Your task to perform on an android device: uninstall "Truecaller" Image 0: 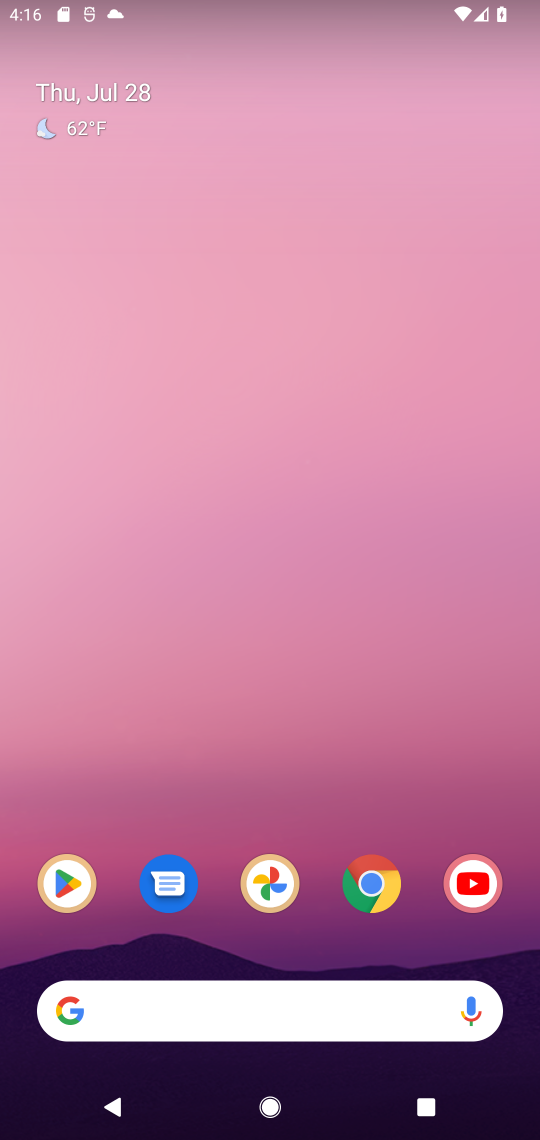
Step 0: drag from (277, 1005) to (190, 96)
Your task to perform on an android device: uninstall "Truecaller" Image 1: 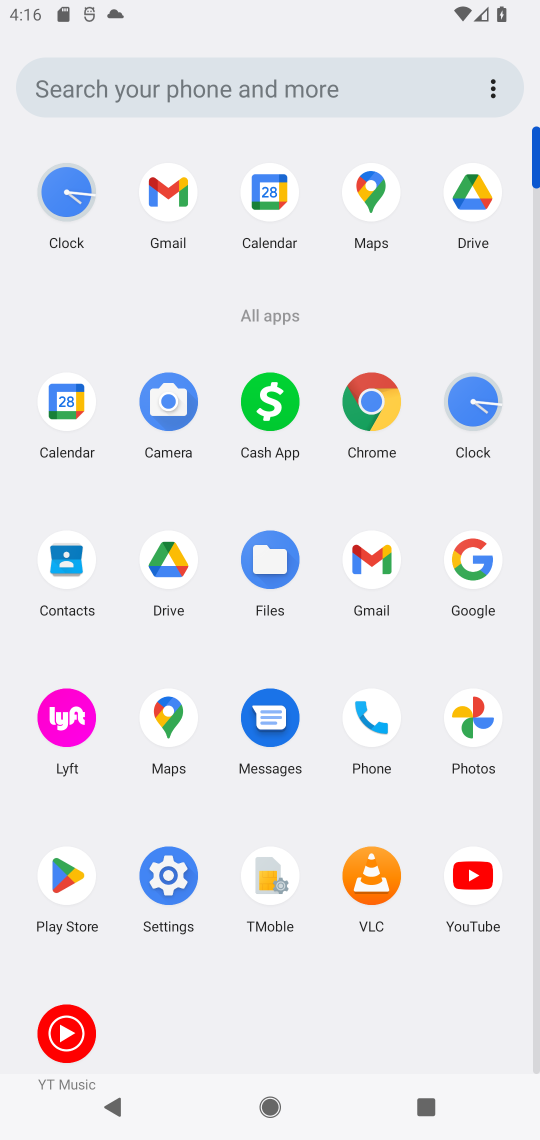
Step 1: click (71, 883)
Your task to perform on an android device: uninstall "Truecaller" Image 2: 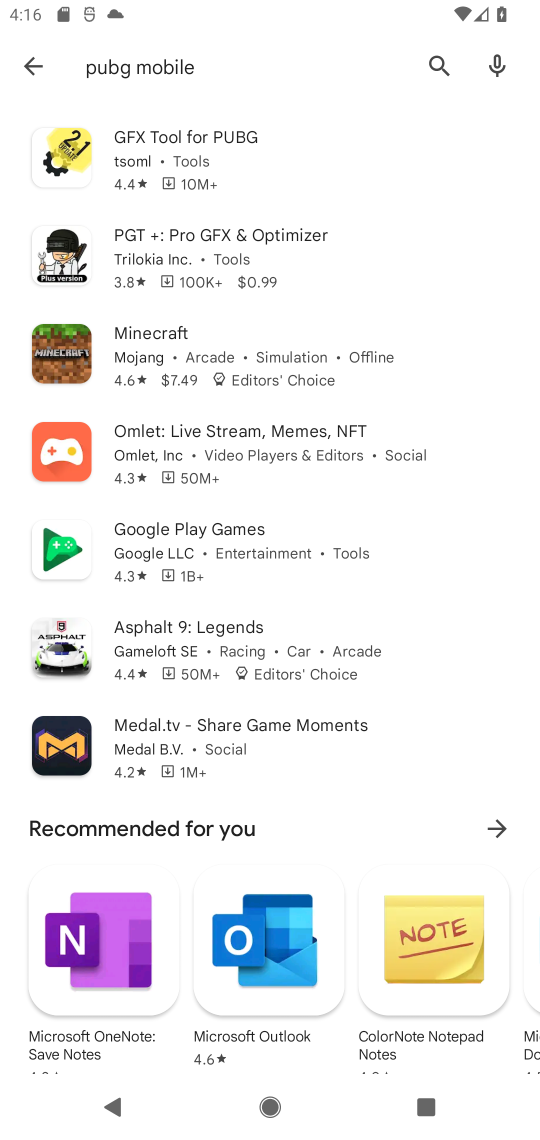
Step 2: click (37, 54)
Your task to perform on an android device: uninstall "Truecaller" Image 3: 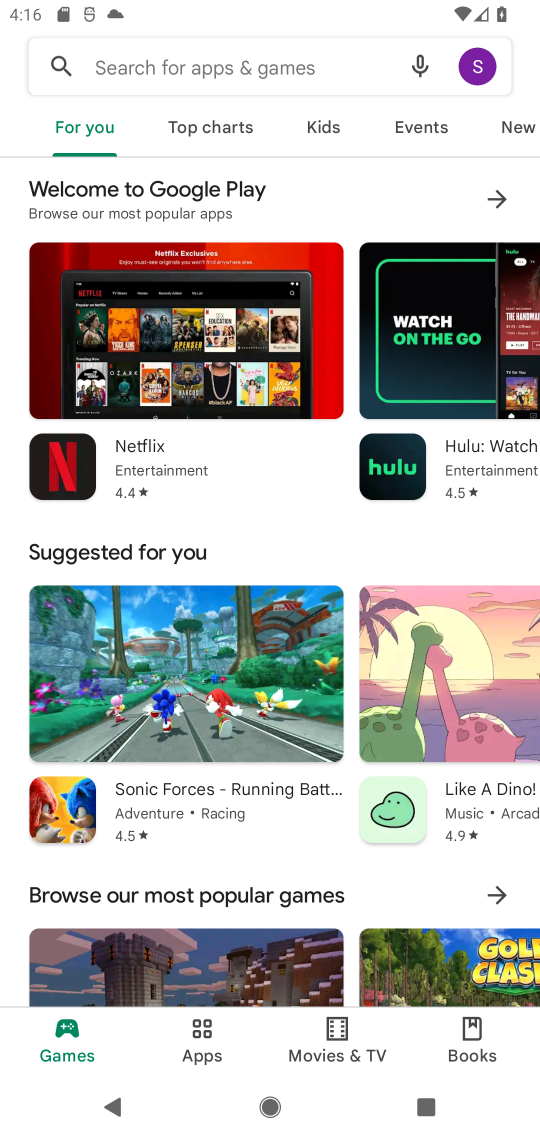
Step 3: click (195, 82)
Your task to perform on an android device: uninstall "Truecaller" Image 4: 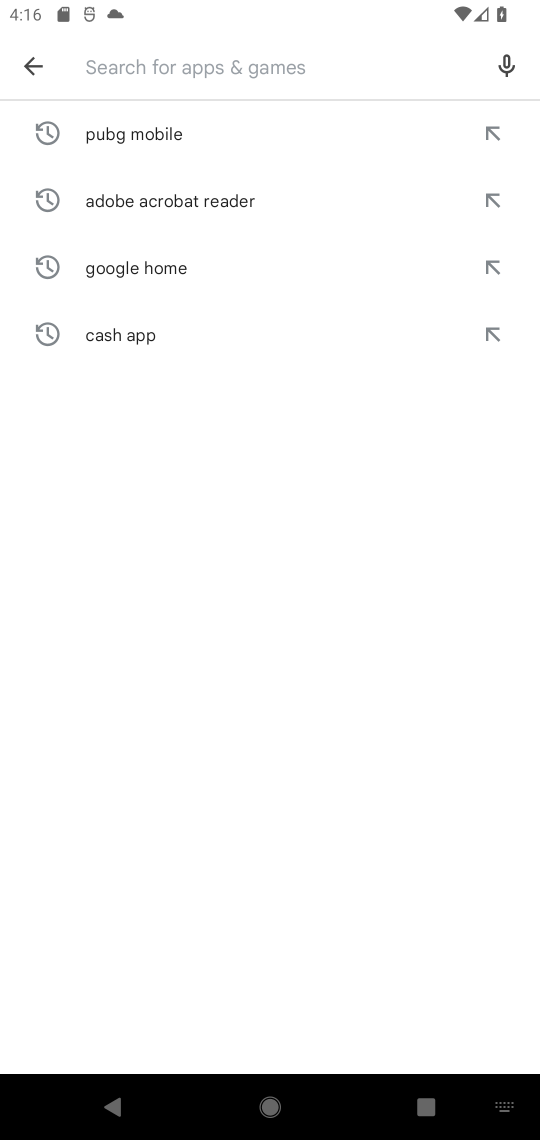
Step 4: click (106, 73)
Your task to perform on an android device: uninstall "Truecaller" Image 5: 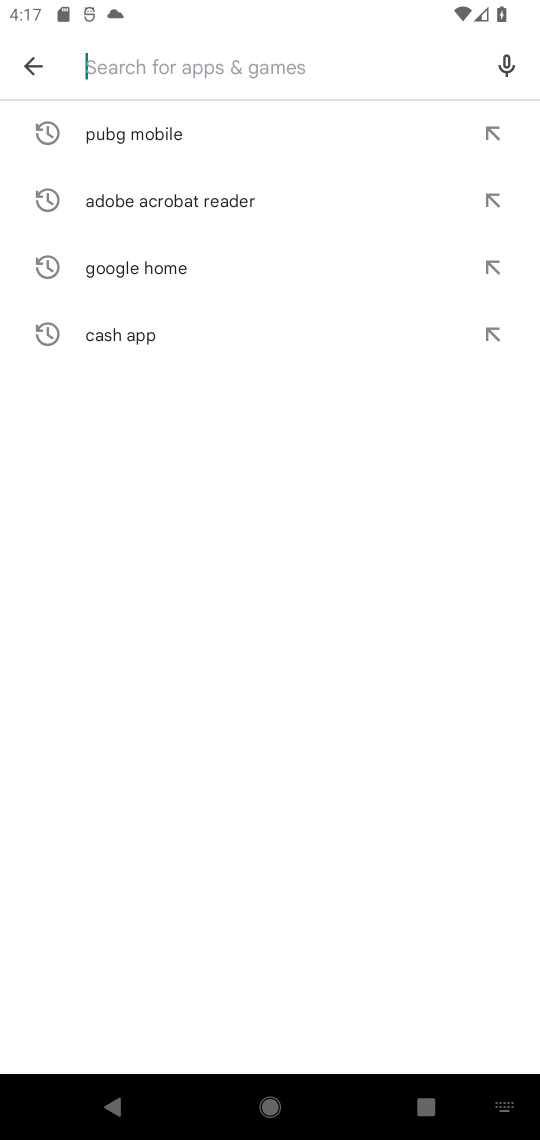
Step 5: type "Truecaller"
Your task to perform on an android device: uninstall "Truecaller" Image 6: 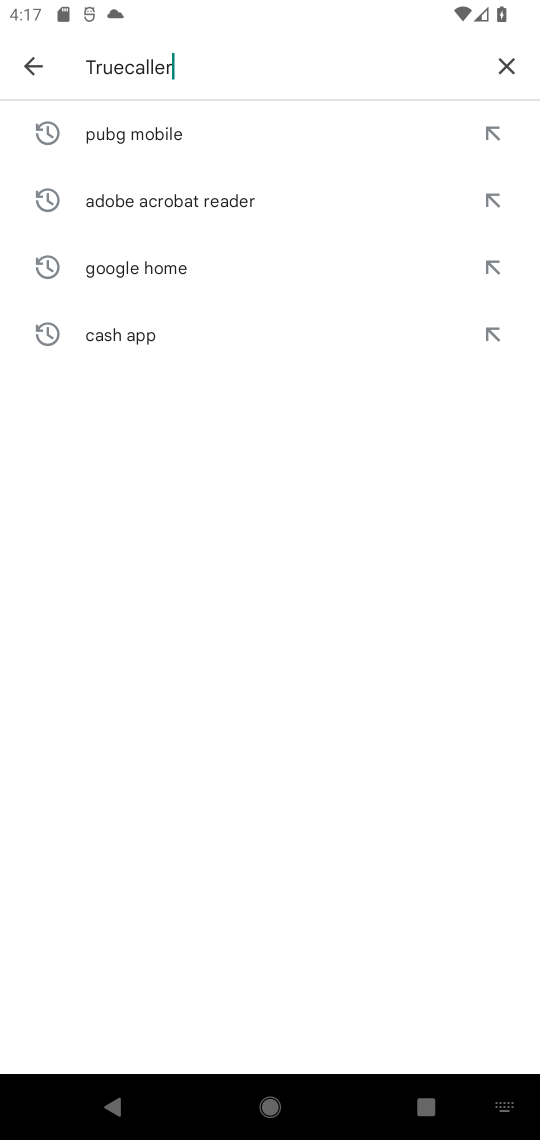
Step 6: type ""
Your task to perform on an android device: uninstall "Truecaller" Image 7: 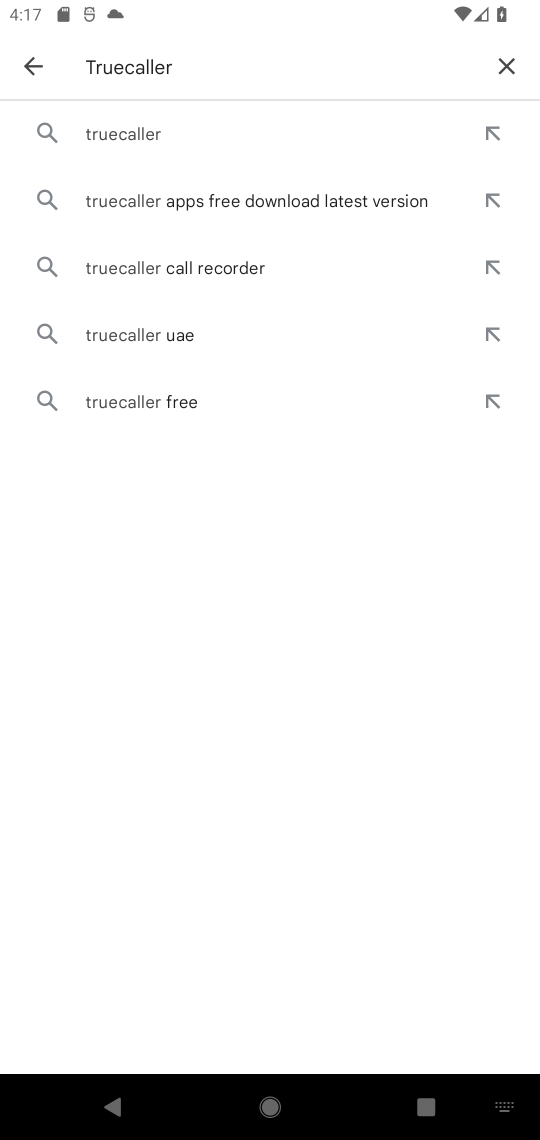
Step 7: click (125, 134)
Your task to perform on an android device: uninstall "Truecaller" Image 8: 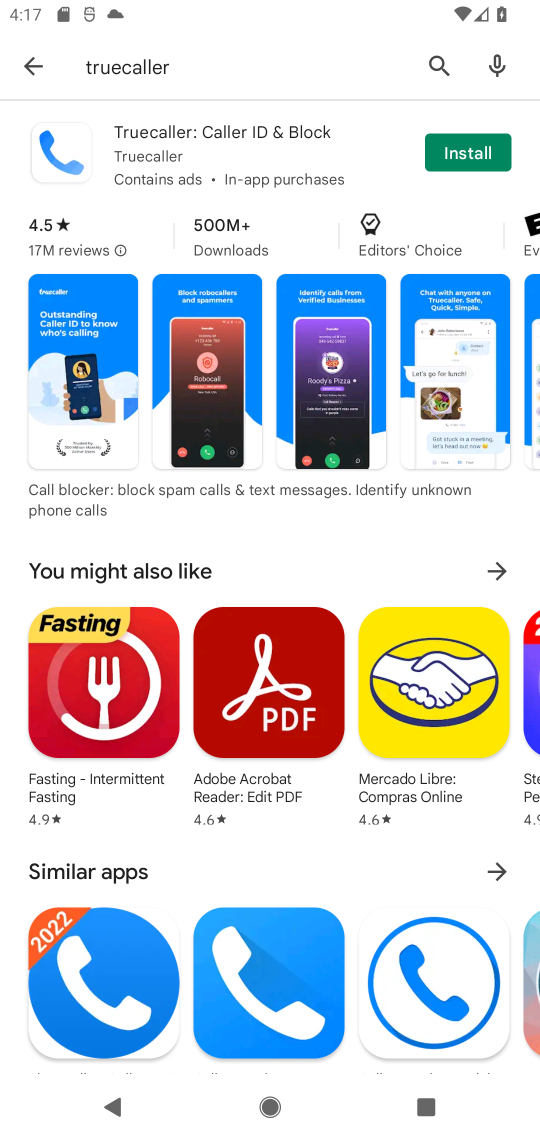
Step 8: task complete